Your task to perform on an android device: Empty the shopping cart on amazon.com. Image 0: 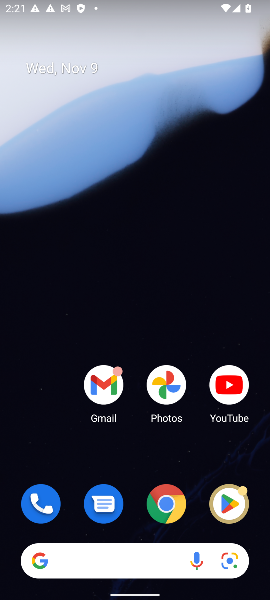
Step 0: click (170, 512)
Your task to perform on an android device: Empty the shopping cart on amazon.com. Image 1: 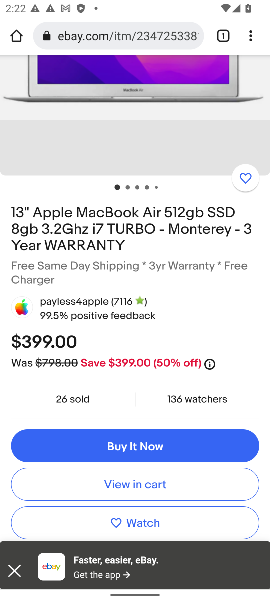
Step 1: click (121, 37)
Your task to perform on an android device: Empty the shopping cart on amazon.com. Image 2: 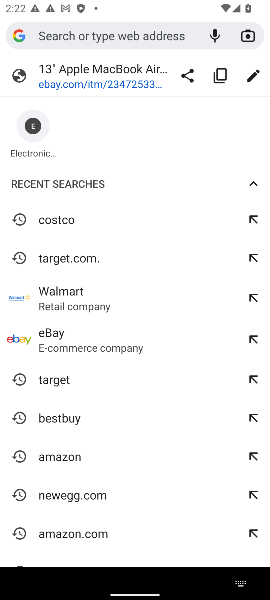
Step 2: click (55, 535)
Your task to perform on an android device: Empty the shopping cart on amazon.com. Image 3: 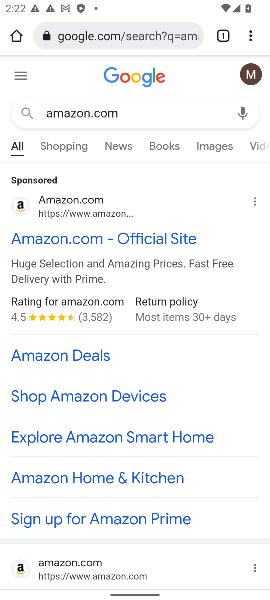
Step 3: drag from (31, 394) to (49, 229)
Your task to perform on an android device: Empty the shopping cart on amazon.com. Image 4: 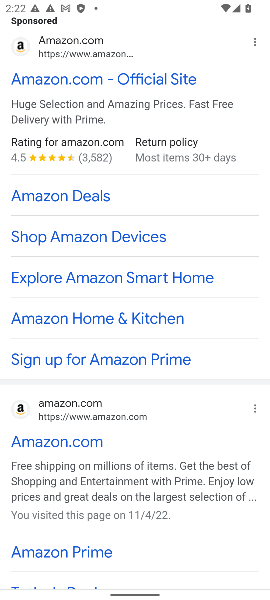
Step 4: click (43, 412)
Your task to perform on an android device: Empty the shopping cart on amazon.com. Image 5: 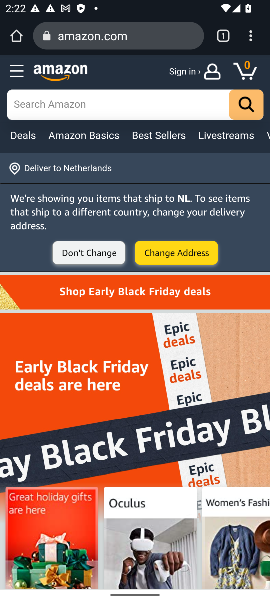
Step 5: click (251, 67)
Your task to perform on an android device: Empty the shopping cart on amazon.com. Image 6: 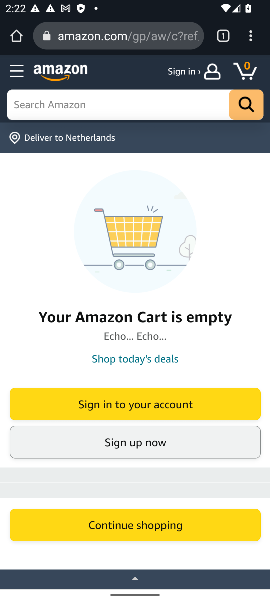
Step 6: task complete